Your task to perform on an android device: set the stopwatch Image 0: 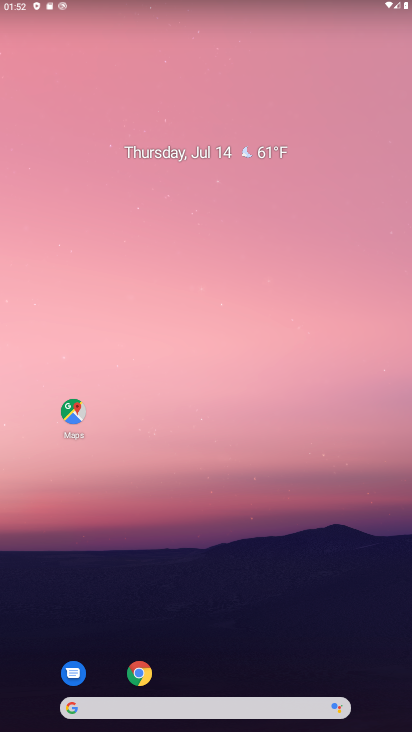
Step 0: drag from (274, 645) to (239, 317)
Your task to perform on an android device: set the stopwatch Image 1: 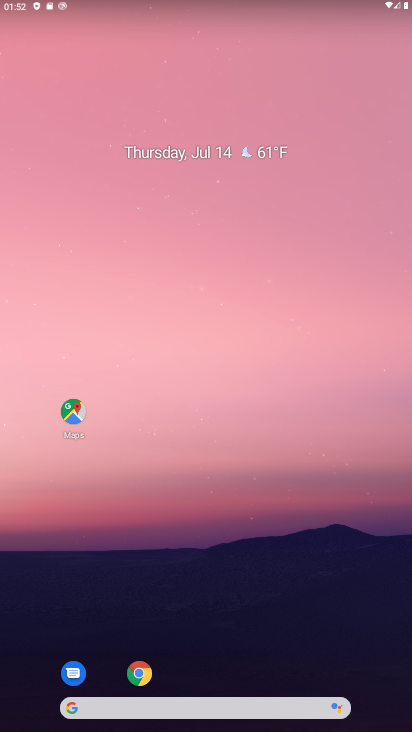
Step 1: drag from (223, 613) to (232, 108)
Your task to perform on an android device: set the stopwatch Image 2: 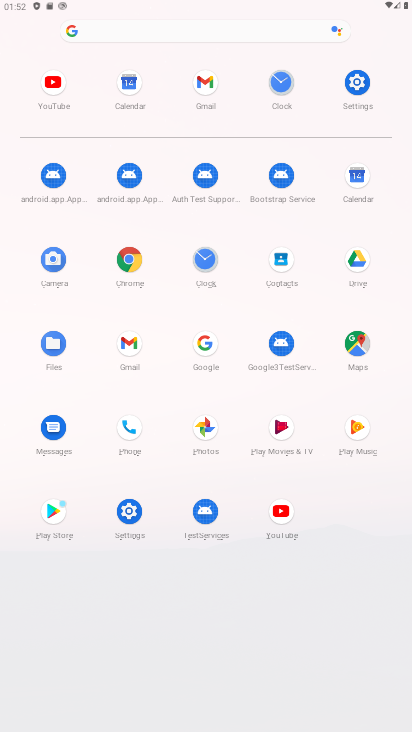
Step 2: click (281, 88)
Your task to perform on an android device: set the stopwatch Image 3: 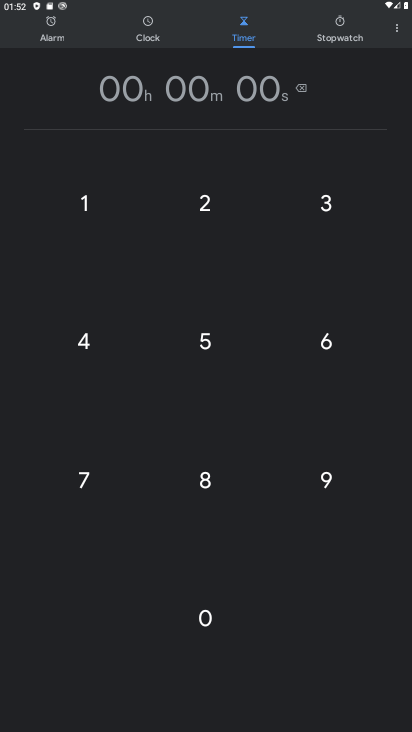
Step 3: click (346, 21)
Your task to perform on an android device: set the stopwatch Image 4: 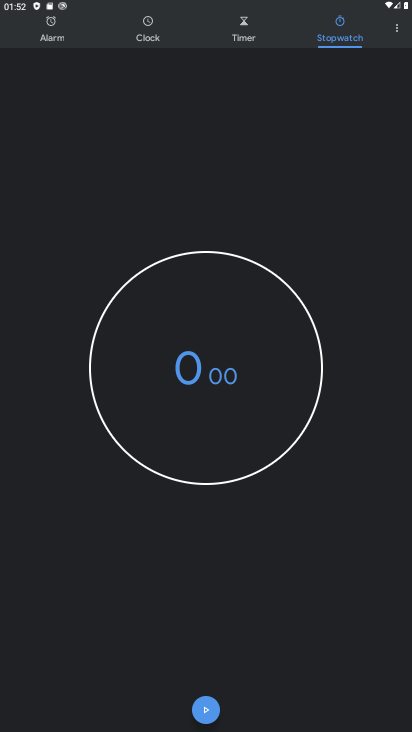
Step 4: task complete